Your task to perform on an android device: Search for Italian restaurants on Maps Image 0: 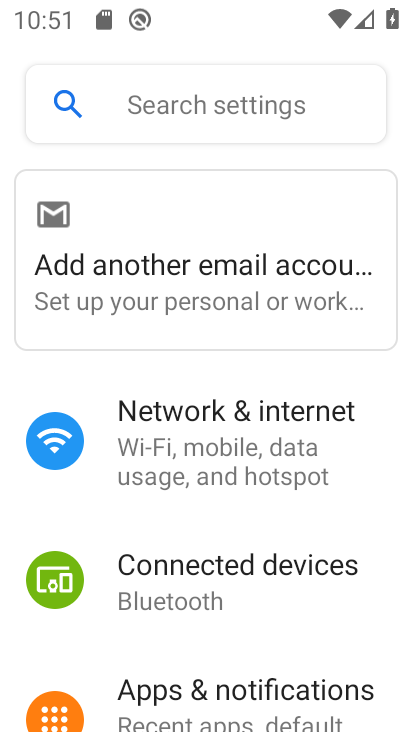
Step 0: press home button
Your task to perform on an android device: Search for Italian restaurants on Maps Image 1: 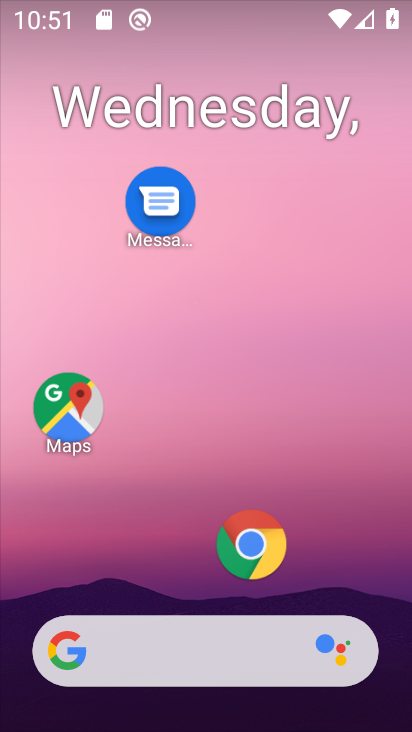
Step 1: click (87, 411)
Your task to perform on an android device: Search for Italian restaurants on Maps Image 2: 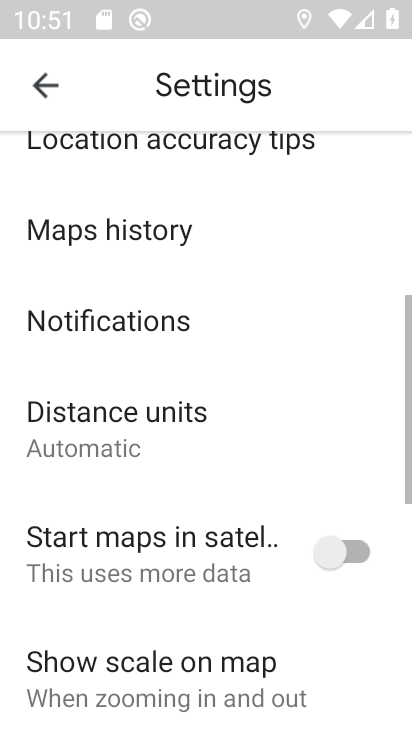
Step 2: click (34, 86)
Your task to perform on an android device: Search for Italian restaurants on Maps Image 3: 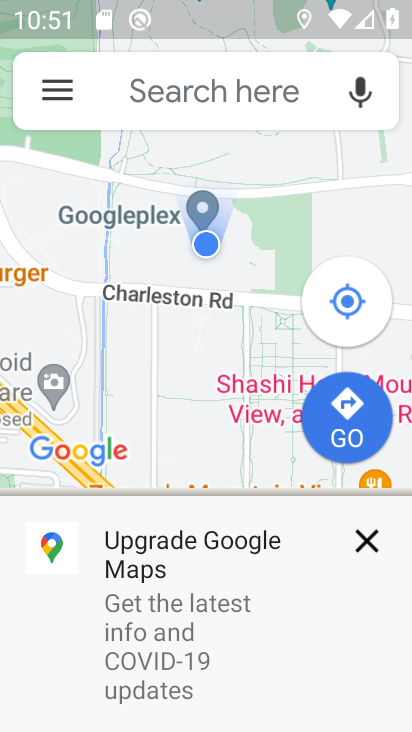
Step 3: click (157, 83)
Your task to perform on an android device: Search for Italian restaurants on Maps Image 4: 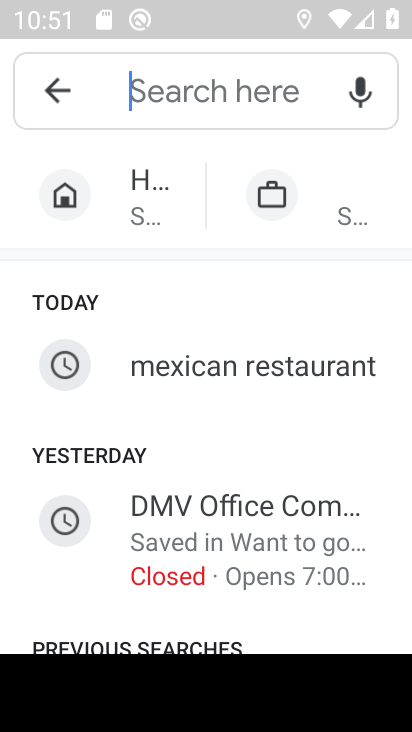
Step 4: type "Italian restaurants"
Your task to perform on an android device: Search for Italian restaurants on Maps Image 5: 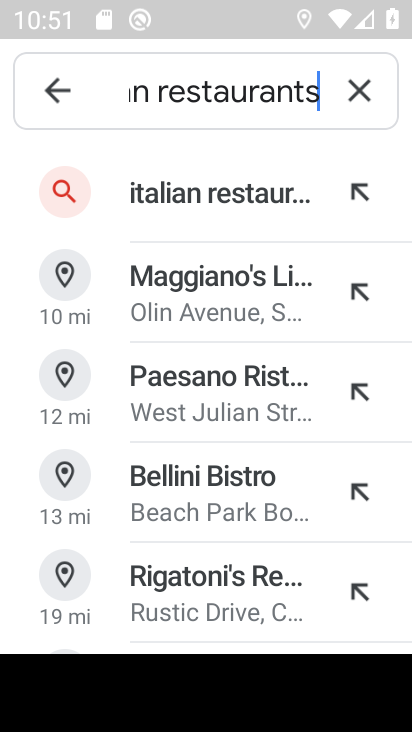
Step 5: click (242, 190)
Your task to perform on an android device: Search for Italian restaurants on Maps Image 6: 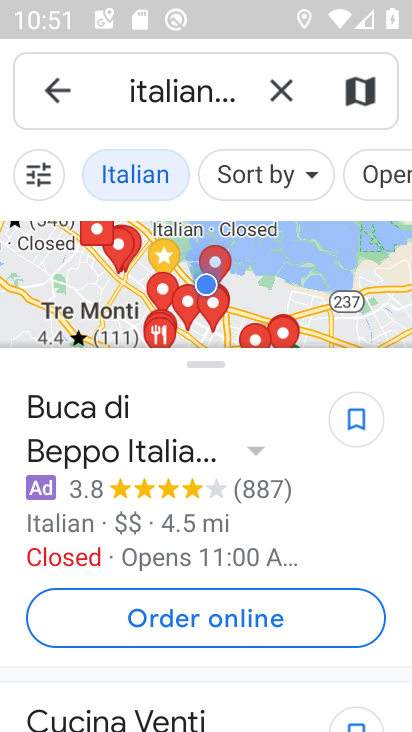
Step 6: task complete